Your task to perform on an android device: Open settings on Google Maps Image 0: 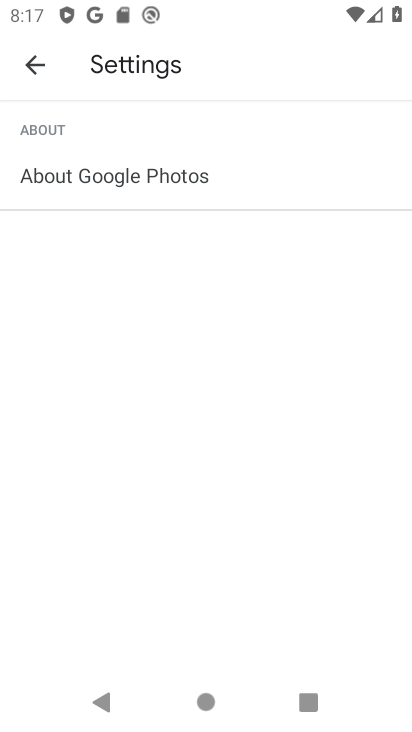
Step 0: press home button
Your task to perform on an android device: Open settings on Google Maps Image 1: 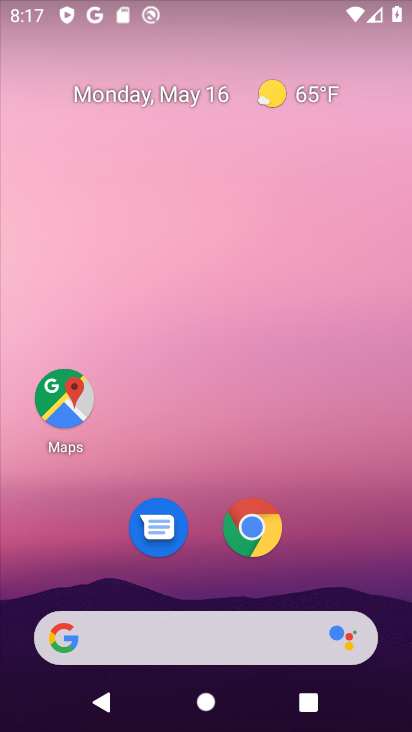
Step 1: click (65, 386)
Your task to perform on an android device: Open settings on Google Maps Image 2: 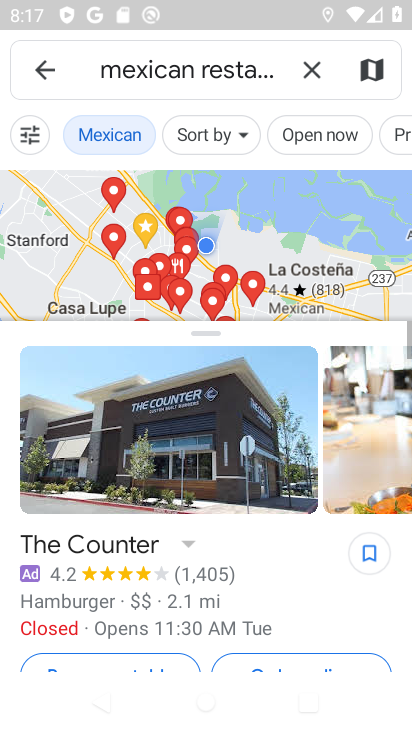
Step 2: click (306, 70)
Your task to perform on an android device: Open settings on Google Maps Image 3: 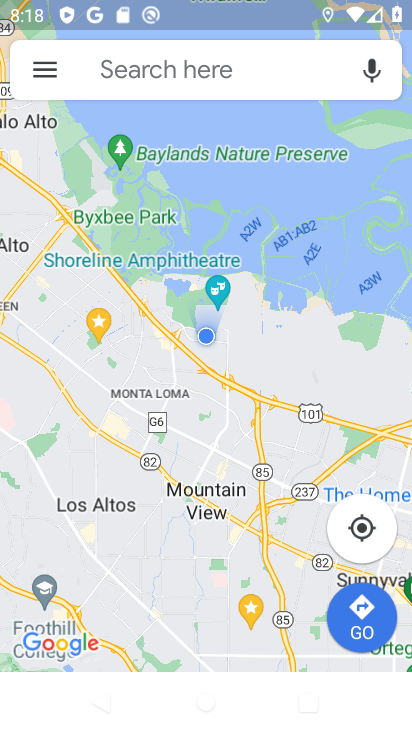
Step 3: task complete